Your task to perform on an android device: search for starred emails in the gmail app Image 0: 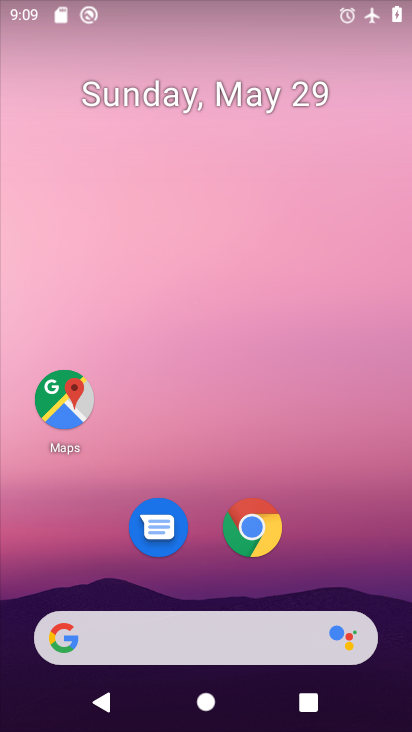
Step 0: press home button
Your task to perform on an android device: search for starred emails in the gmail app Image 1: 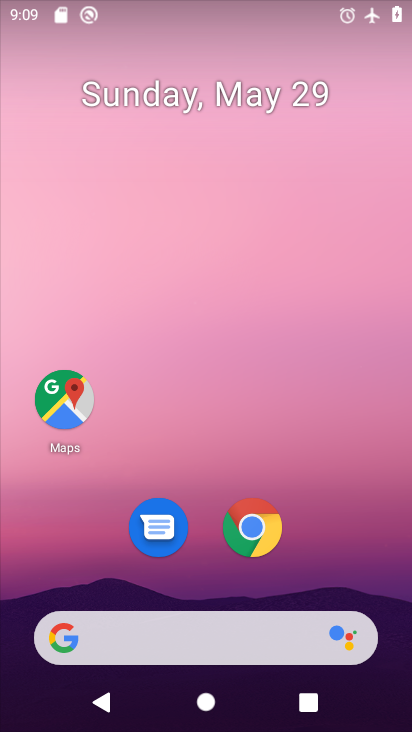
Step 1: drag from (207, 574) to (208, 124)
Your task to perform on an android device: search for starred emails in the gmail app Image 2: 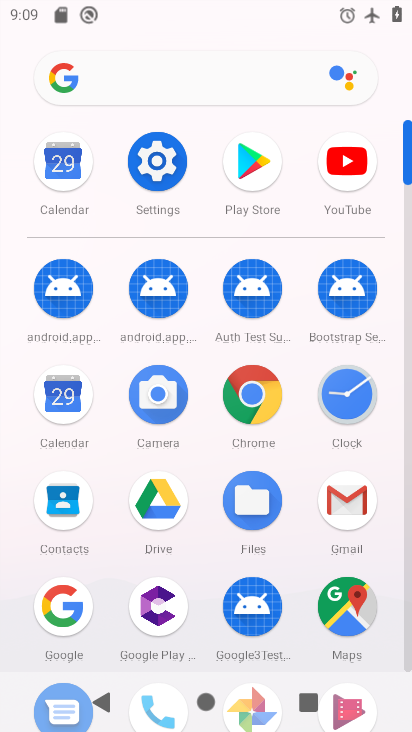
Step 2: click (350, 492)
Your task to perform on an android device: search for starred emails in the gmail app Image 3: 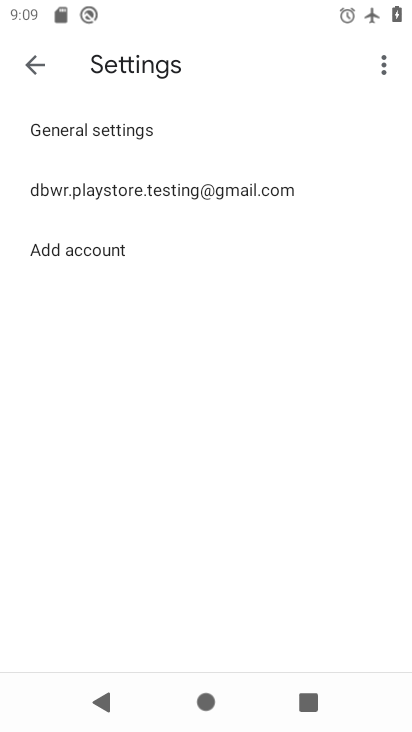
Step 3: click (39, 65)
Your task to perform on an android device: search for starred emails in the gmail app Image 4: 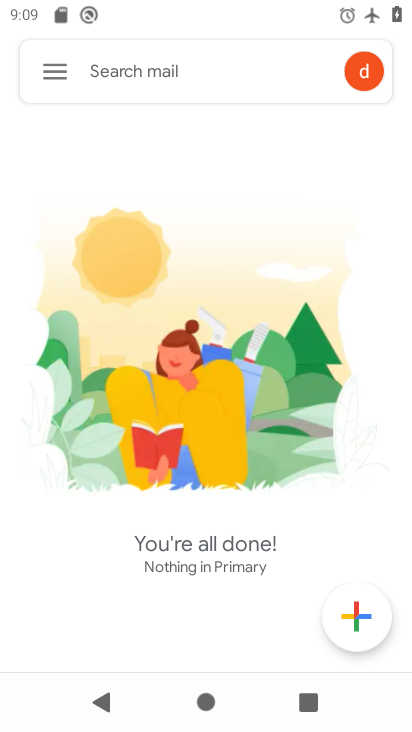
Step 4: click (39, 61)
Your task to perform on an android device: search for starred emails in the gmail app Image 5: 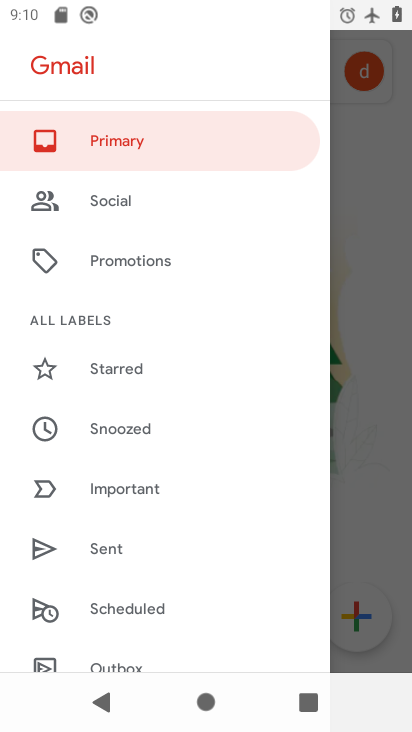
Step 5: click (125, 366)
Your task to perform on an android device: search for starred emails in the gmail app Image 6: 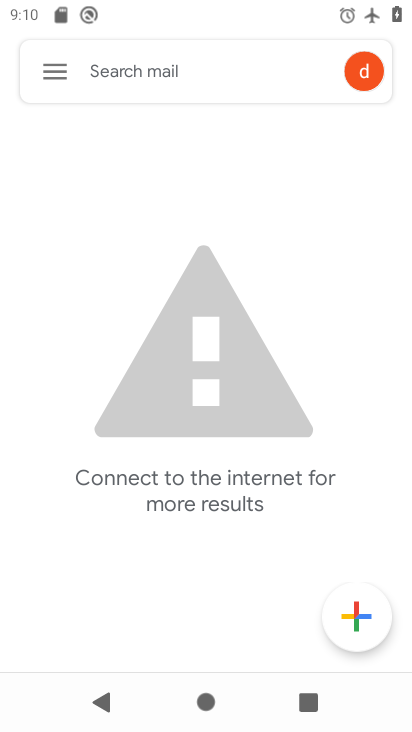
Step 6: task complete